Your task to perform on an android device: turn off notifications in google photos Image 0: 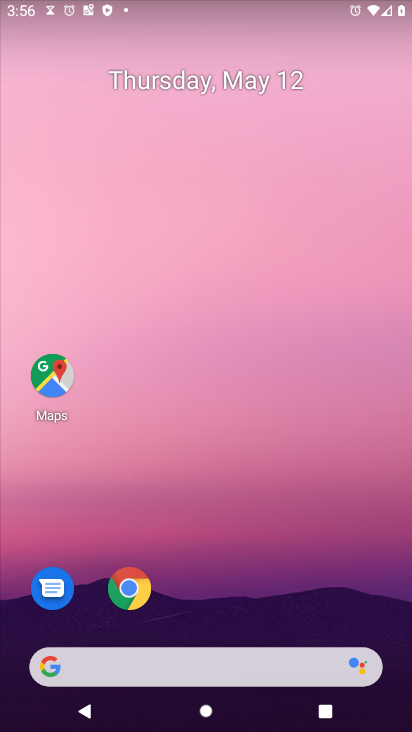
Step 0: drag from (271, 561) to (265, 34)
Your task to perform on an android device: turn off notifications in google photos Image 1: 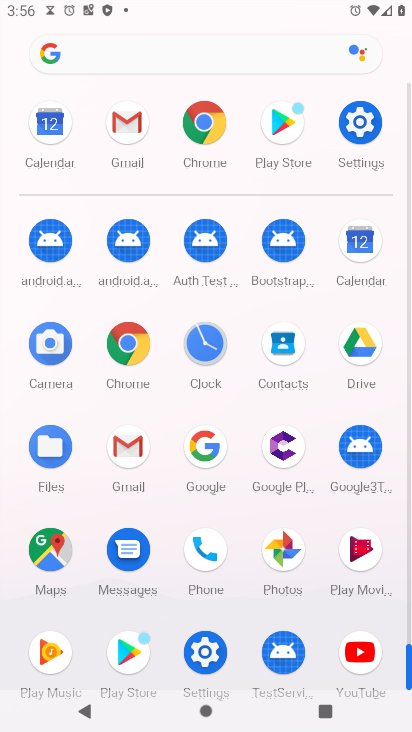
Step 1: drag from (11, 555) to (19, 210)
Your task to perform on an android device: turn off notifications in google photos Image 2: 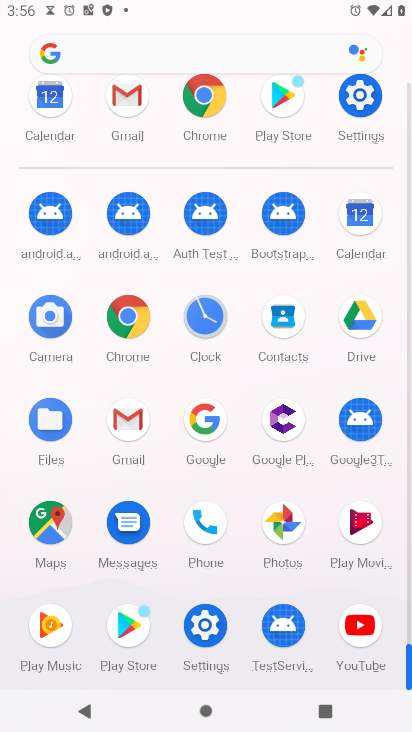
Step 2: click (280, 518)
Your task to perform on an android device: turn off notifications in google photos Image 3: 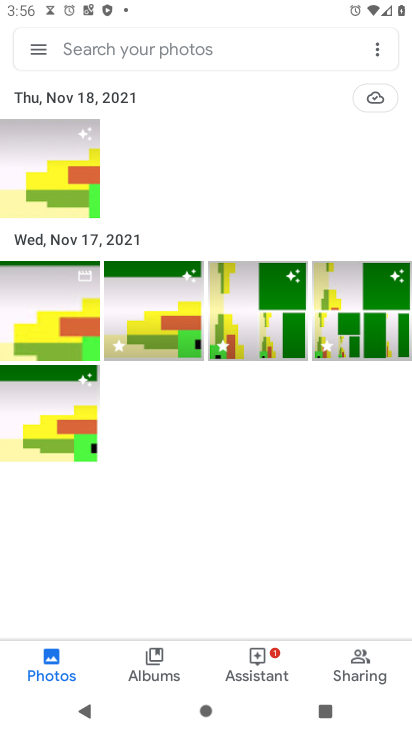
Step 3: click (39, 44)
Your task to perform on an android device: turn off notifications in google photos Image 4: 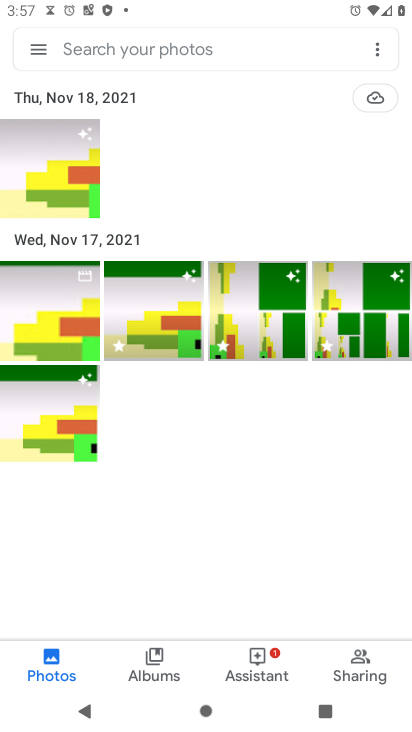
Step 4: click (38, 46)
Your task to perform on an android device: turn off notifications in google photos Image 5: 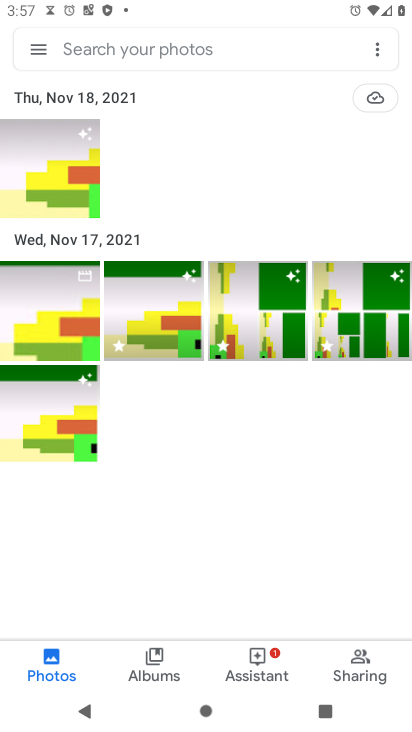
Step 5: click (35, 47)
Your task to perform on an android device: turn off notifications in google photos Image 6: 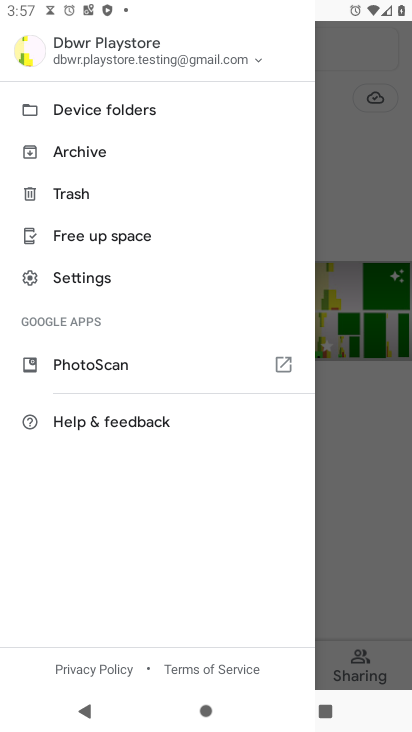
Step 6: click (100, 280)
Your task to perform on an android device: turn off notifications in google photos Image 7: 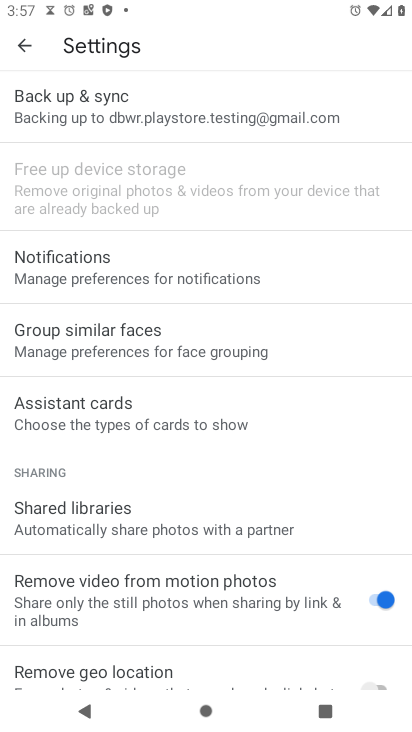
Step 7: click (97, 259)
Your task to perform on an android device: turn off notifications in google photos Image 8: 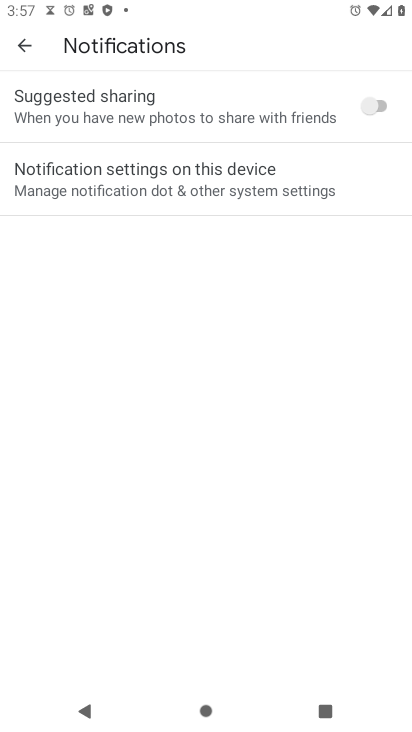
Step 8: click (229, 158)
Your task to perform on an android device: turn off notifications in google photos Image 9: 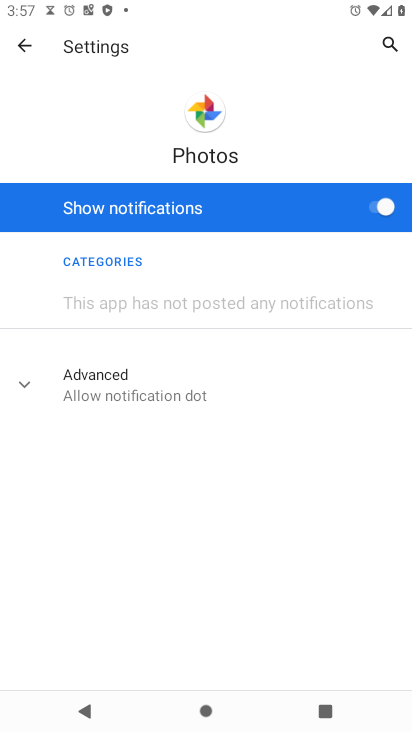
Step 9: click (367, 200)
Your task to perform on an android device: turn off notifications in google photos Image 10: 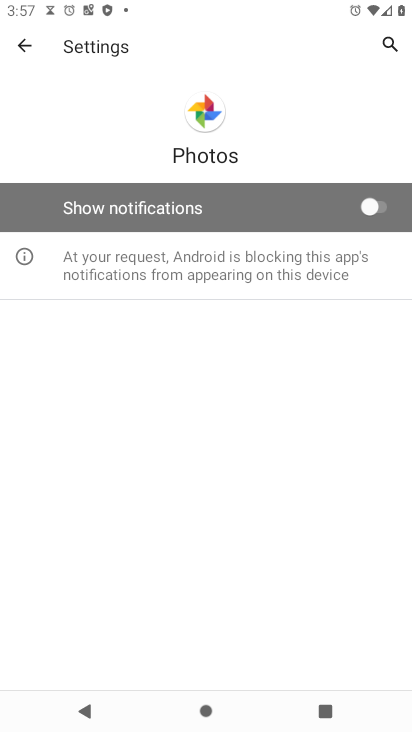
Step 10: task complete